Your task to perform on an android device: change alarm snooze length Image 0: 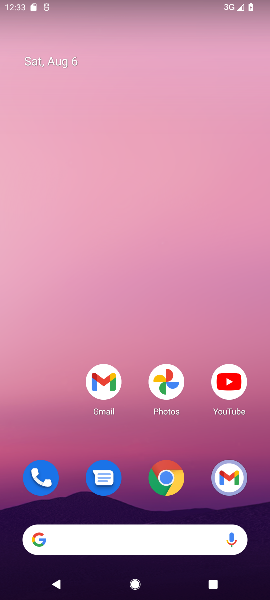
Step 0: drag from (131, 527) to (169, 225)
Your task to perform on an android device: change alarm snooze length Image 1: 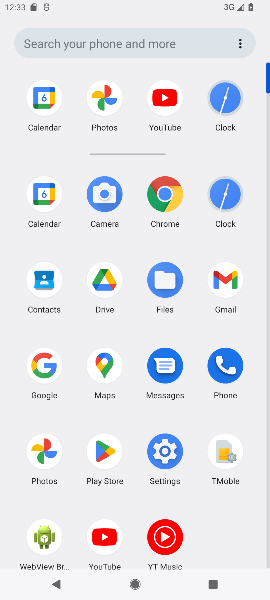
Step 1: click (162, 450)
Your task to perform on an android device: change alarm snooze length Image 2: 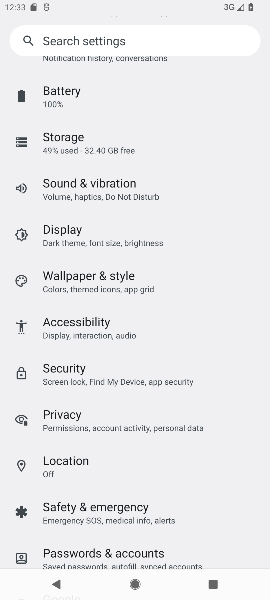
Step 2: press home button
Your task to perform on an android device: change alarm snooze length Image 3: 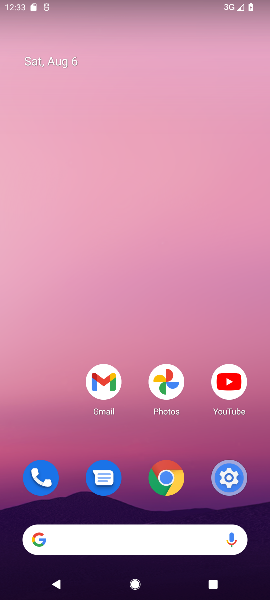
Step 3: drag from (144, 536) to (197, 237)
Your task to perform on an android device: change alarm snooze length Image 4: 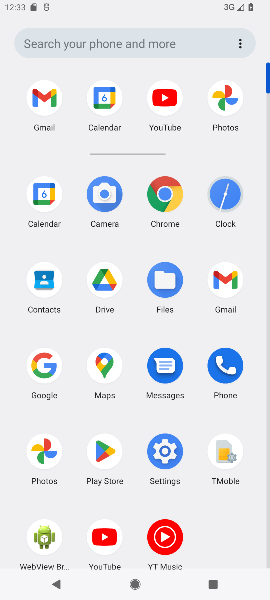
Step 4: click (225, 195)
Your task to perform on an android device: change alarm snooze length Image 5: 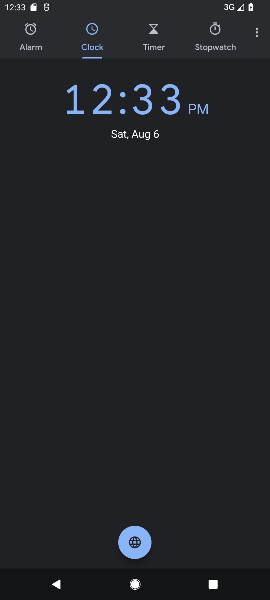
Step 5: click (256, 32)
Your task to perform on an android device: change alarm snooze length Image 6: 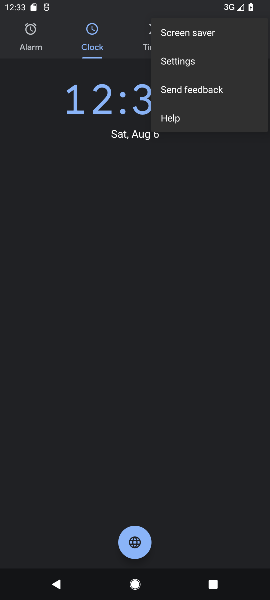
Step 6: click (175, 62)
Your task to perform on an android device: change alarm snooze length Image 7: 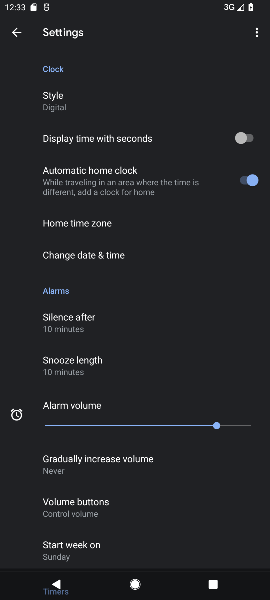
Step 7: drag from (102, 540) to (113, 259)
Your task to perform on an android device: change alarm snooze length Image 8: 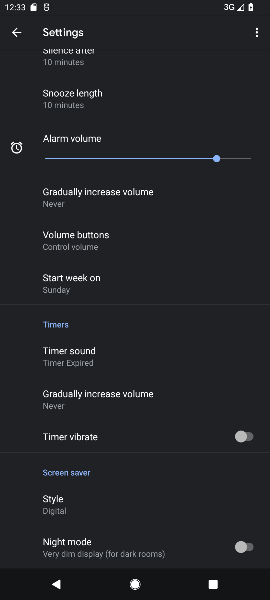
Step 8: drag from (90, 542) to (95, 388)
Your task to perform on an android device: change alarm snooze length Image 9: 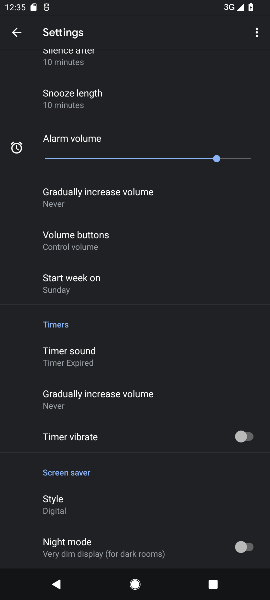
Step 9: click (73, 104)
Your task to perform on an android device: change alarm snooze length Image 10: 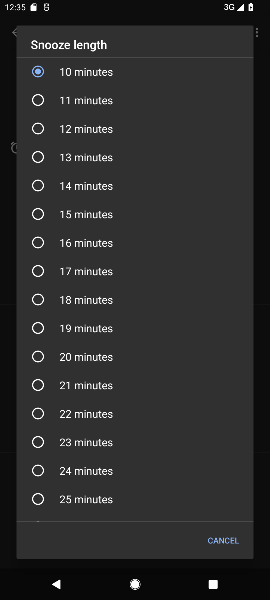
Step 10: click (82, 105)
Your task to perform on an android device: change alarm snooze length Image 11: 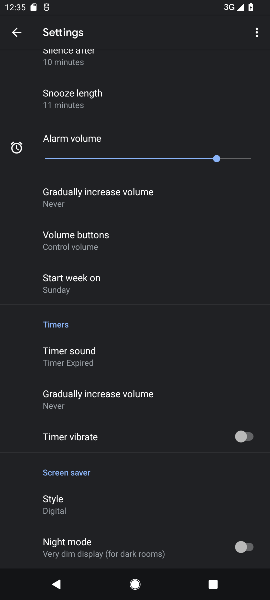
Step 11: task complete